Your task to perform on an android device: create a new album in the google photos Image 0: 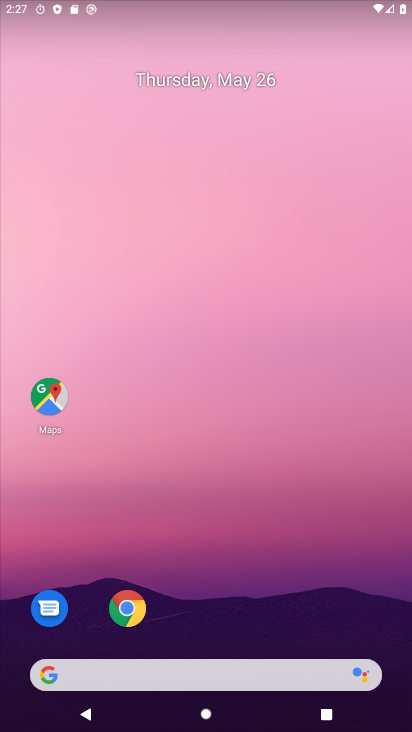
Step 0: drag from (309, 690) to (225, 147)
Your task to perform on an android device: create a new album in the google photos Image 1: 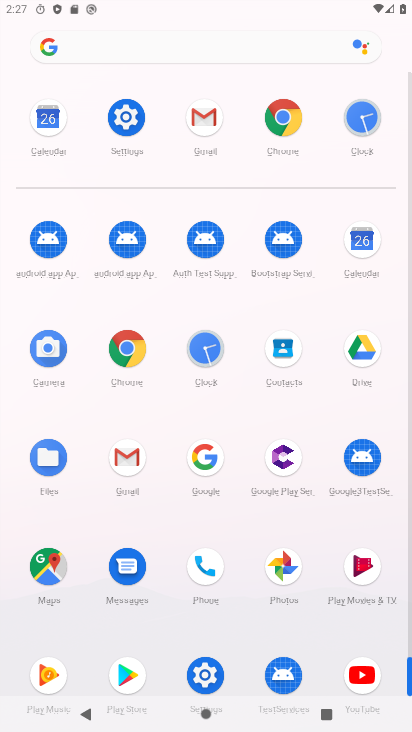
Step 1: click (288, 563)
Your task to perform on an android device: create a new album in the google photos Image 2: 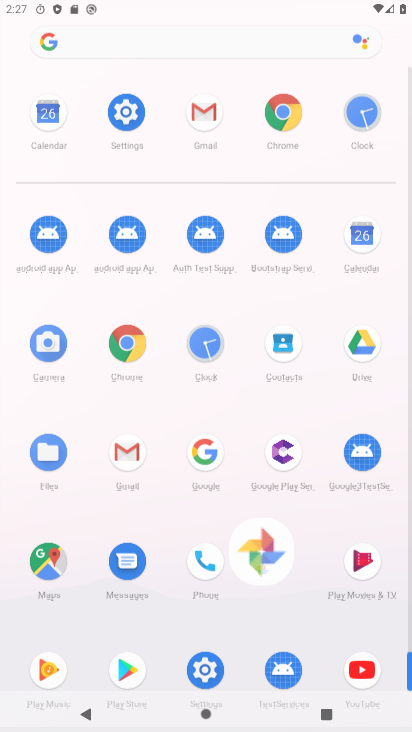
Step 2: click (288, 563)
Your task to perform on an android device: create a new album in the google photos Image 3: 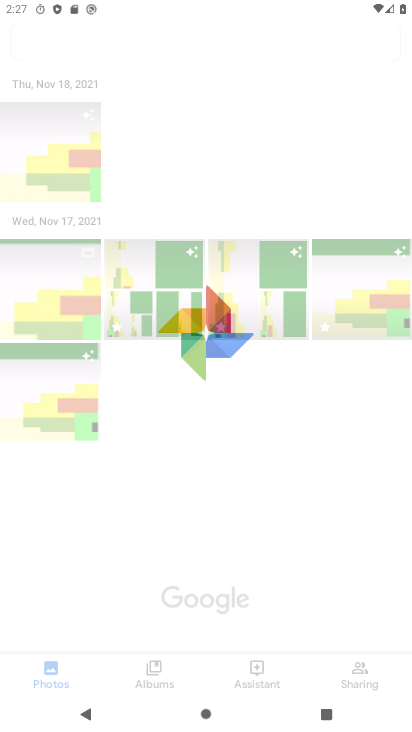
Step 3: click (288, 563)
Your task to perform on an android device: create a new album in the google photos Image 4: 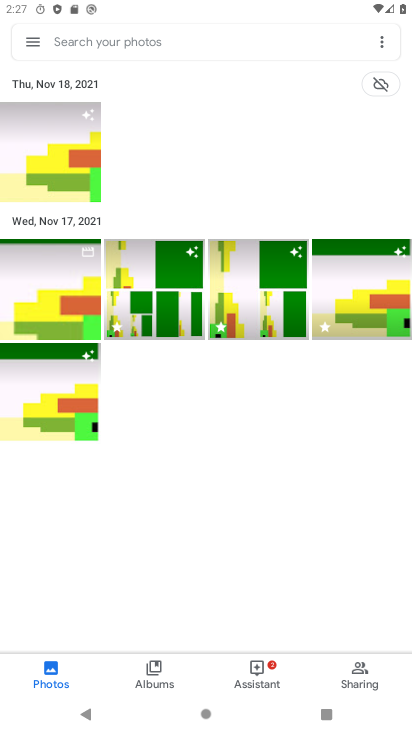
Step 4: click (381, 45)
Your task to perform on an android device: create a new album in the google photos Image 5: 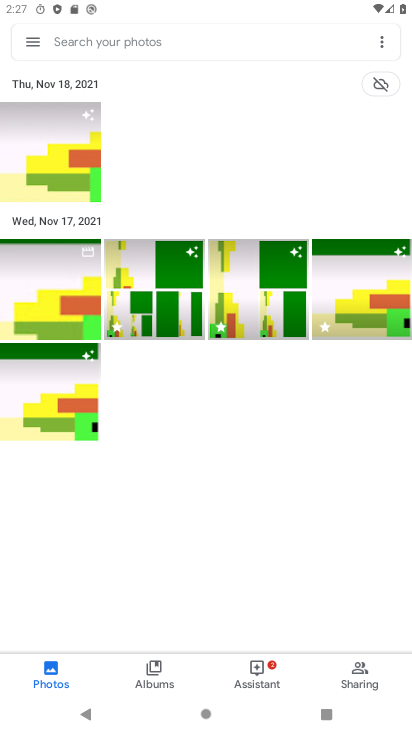
Step 5: click (381, 45)
Your task to perform on an android device: create a new album in the google photos Image 6: 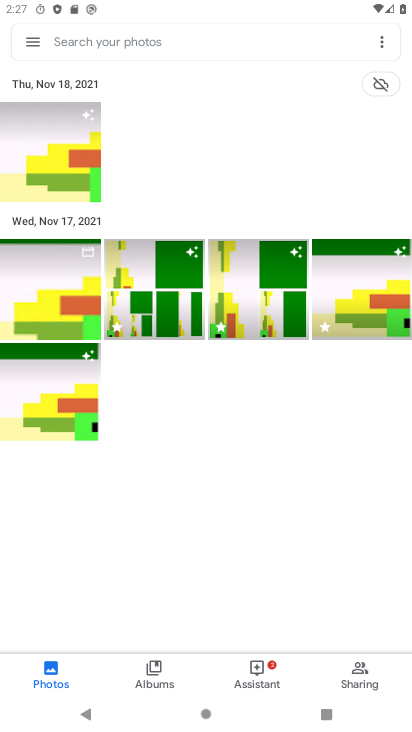
Step 6: click (381, 45)
Your task to perform on an android device: create a new album in the google photos Image 7: 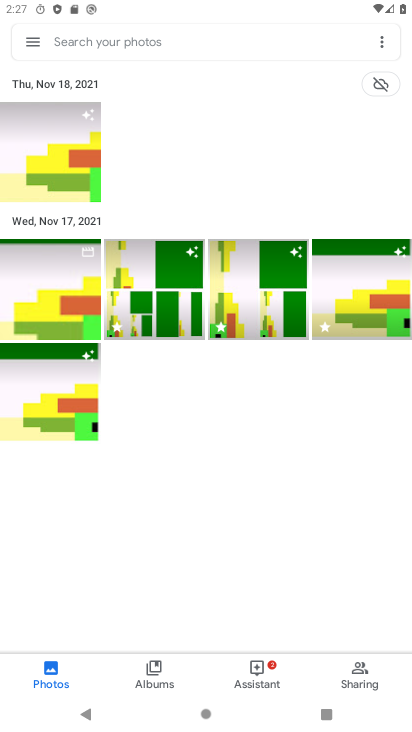
Step 7: click (382, 45)
Your task to perform on an android device: create a new album in the google photos Image 8: 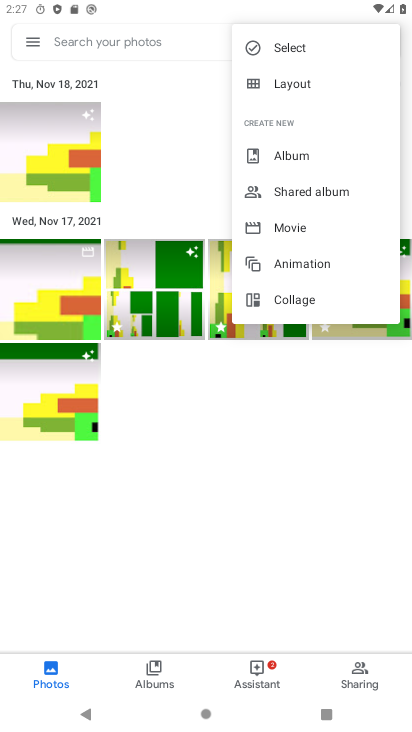
Step 8: drag from (382, 45) to (206, 423)
Your task to perform on an android device: create a new album in the google photos Image 9: 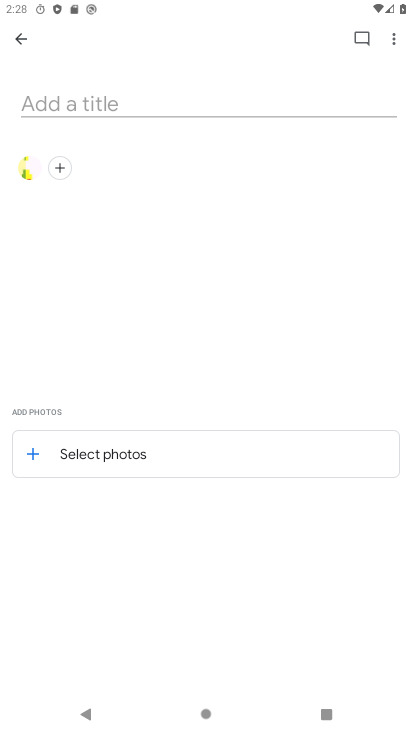
Step 9: click (54, 99)
Your task to perform on an android device: create a new album in the google photos Image 10: 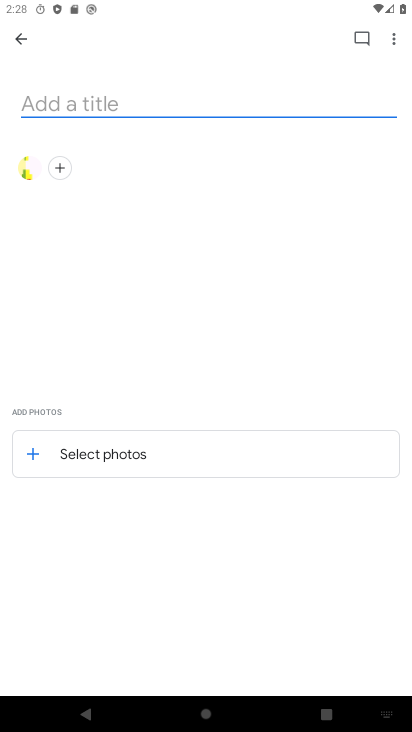
Step 10: type "goa"
Your task to perform on an android device: create a new album in the google photos Image 11: 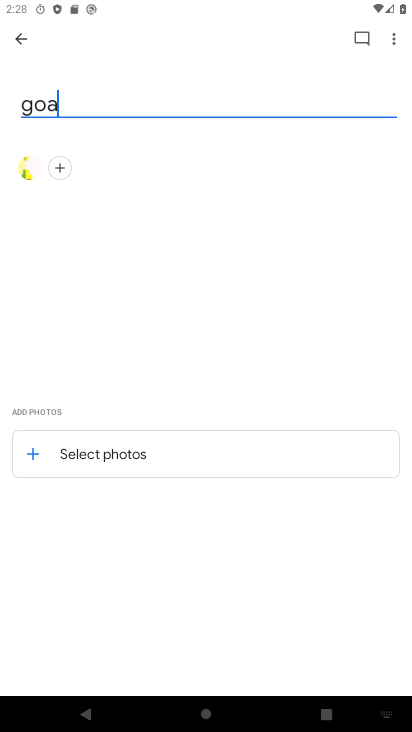
Step 11: click (71, 455)
Your task to perform on an android device: create a new album in the google photos Image 12: 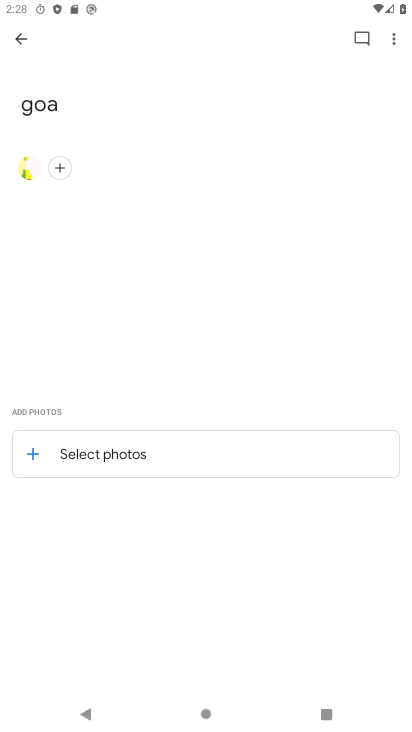
Step 12: click (71, 455)
Your task to perform on an android device: create a new album in the google photos Image 13: 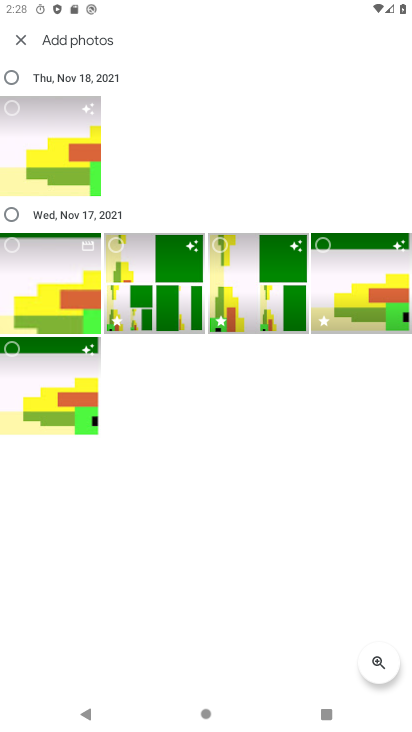
Step 13: click (9, 66)
Your task to perform on an android device: create a new album in the google photos Image 14: 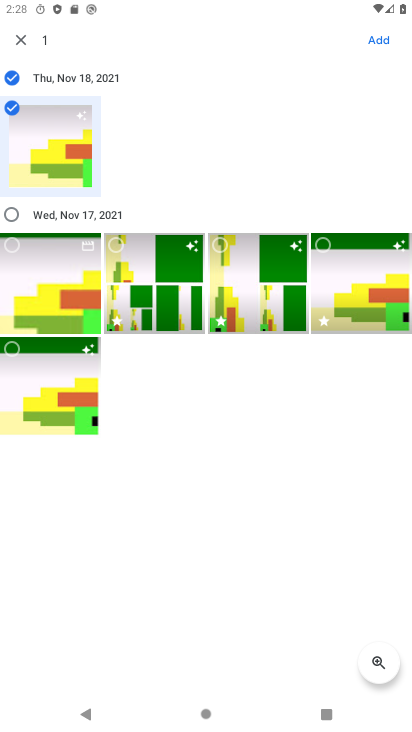
Step 14: click (391, 32)
Your task to perform on an android device: create a new album in the google photos Image 15: 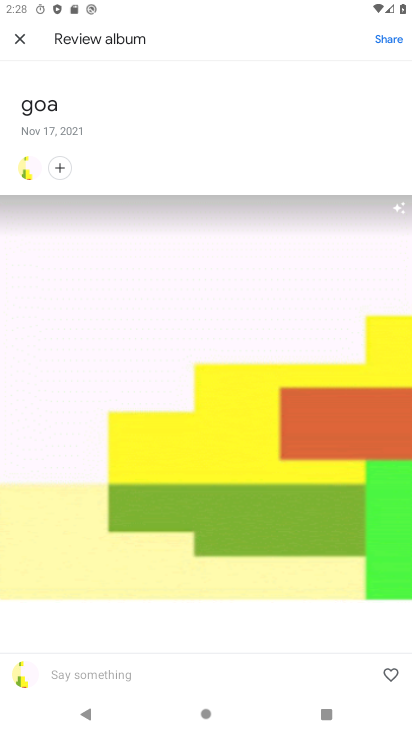
Step 15: task complete